Your task to perform on an android device: Do I have any events today? Image 0: 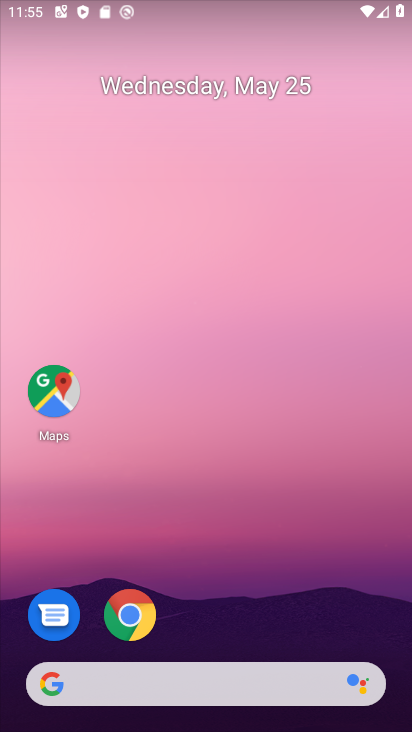
Step 0: drag from (254, 613) to (205, 207)
Your task to perform on an android device: Do I have any events today? Image 1: 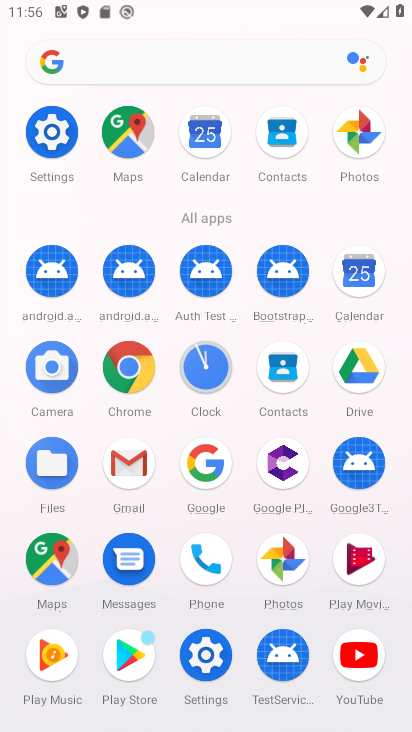
Step 1: click (211, 148)
Your task to perform on an android device: Do I have any events today? Image 2: 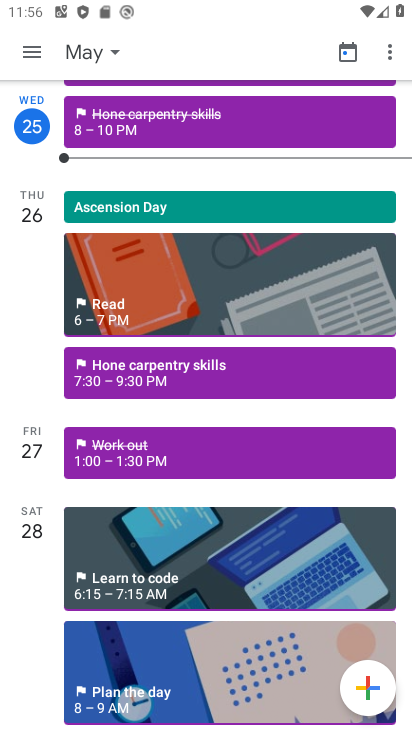
Step 2: click (20, 57)
Your task to perform on an android device: Do I have any events today? Image 3: 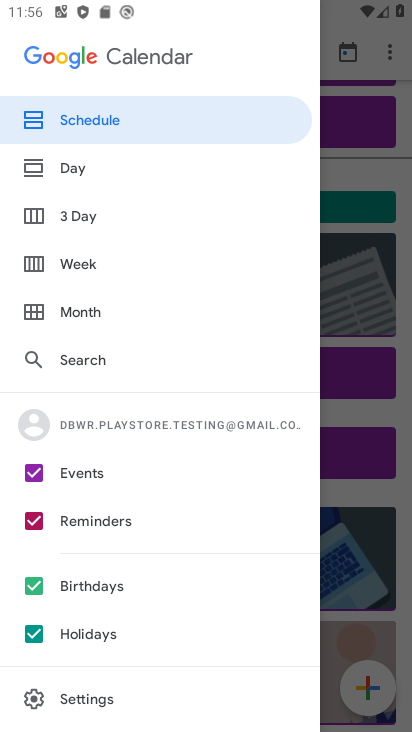
Step 3: click (36, 637)
Your task to perform on an android device: Do I have any events today? Image 4: 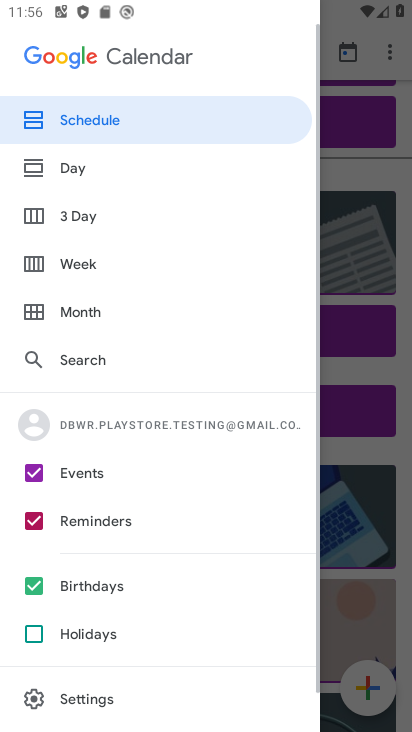
Step 4: click (32, 586)
Your task to perform on an android device: Do I have any events today? Image 5: 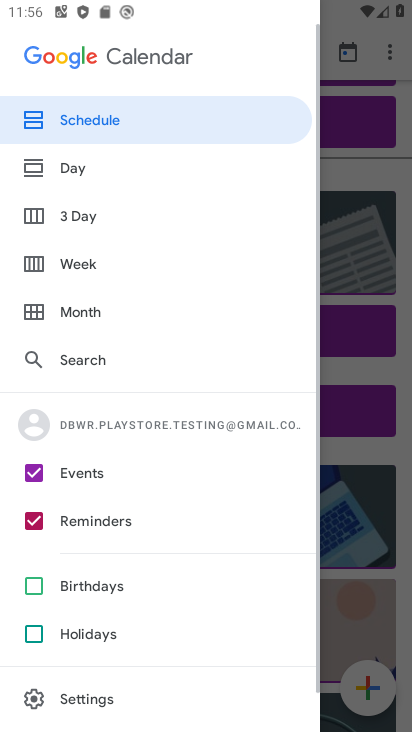
Step 5: click (34, 517)
Your task to perform on an android device: Do I have any events today? Image 6: 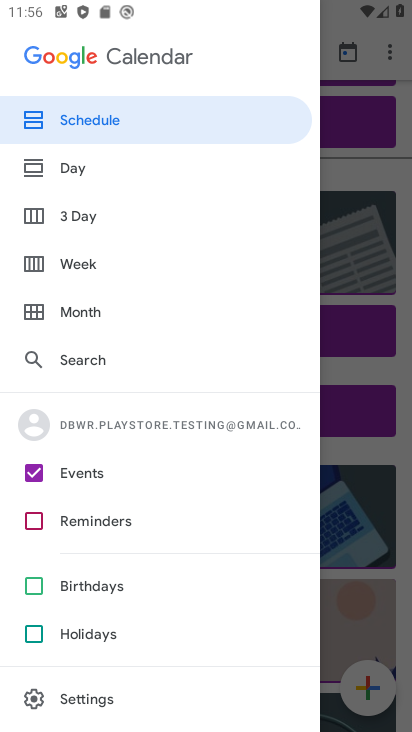
Step 6: click (101, 175)
Your task to perform on an android device: Do I have any events today? Image 7: 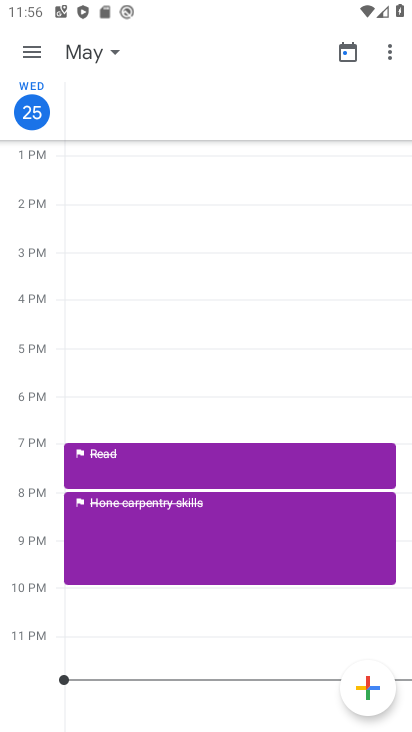
Step 7: click (108, 48)
Your task to perform on an android device: Do I have any events today? Image 8: 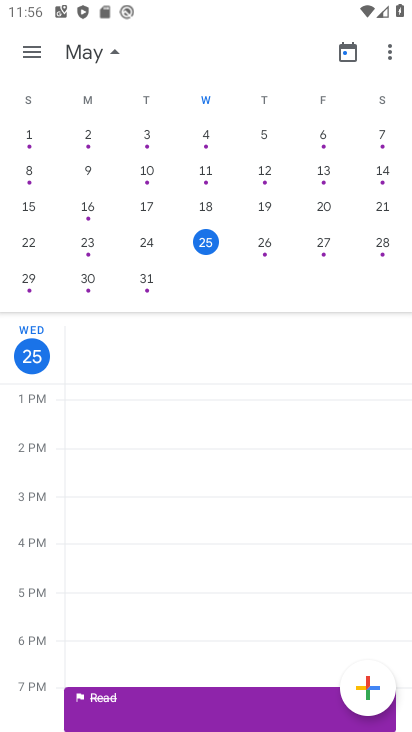
Step 8: click (256, 244)
Your task to perform on an android device: Do I have any events today? Image 9: 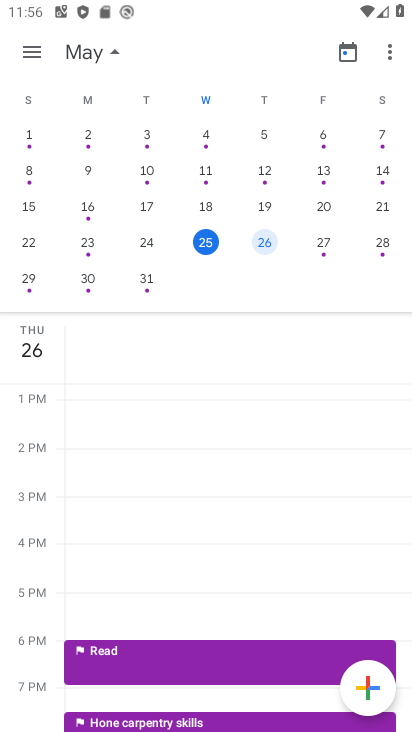
Step 9: click (114, 63)
Your task to perform on an android device: Do I have any events today? Image 10: 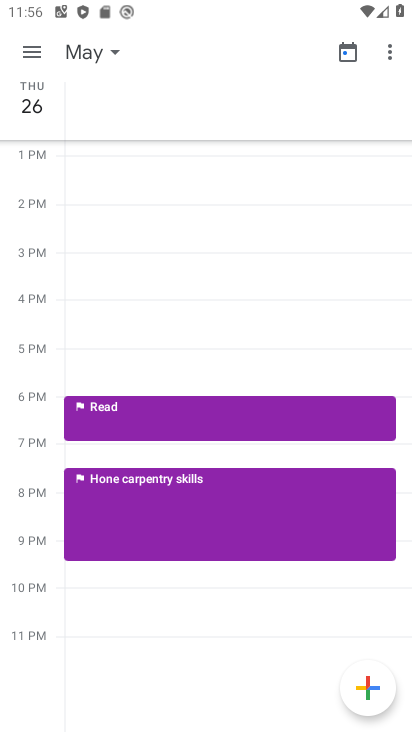
Step 10: task complete